Your task to perform on an android device: Clear the shopping cart on costco. Search for logitech g502 on costco, select the first entry, and add it to the cart. Image 0: 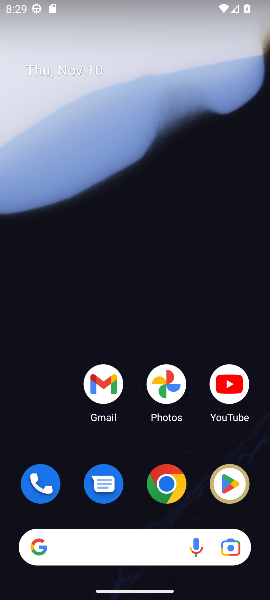
Step 0: click (177, 488)
Your task to perform on an android device: Clear the shopping cart on costco. Search for logitech g502 on costco, select the first entry, and add it to the cart. Image 1: 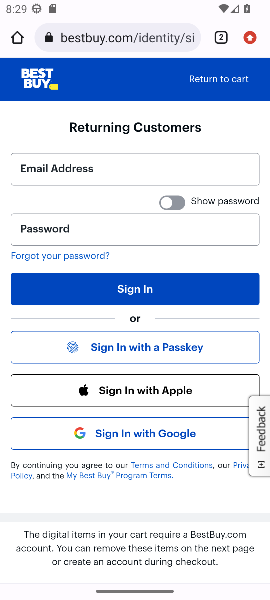
Step 1: click (126, 40)
Your task to perform on an android device: Clear the shopping cart on costco. Search for logitech g502 on costco, select the first entry, and add it to the cart. Image 2: 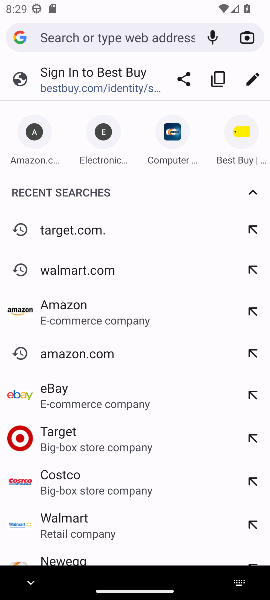
Step 2: type "costco.com"
Your task to perform on an android device: Clear the shopping cart on costco. Search for logitech g502 on costco, select the first entry, and add it to the cart. Image 3: 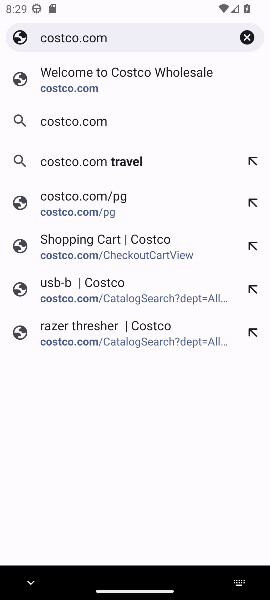
Step 3: click (54, 83)
Your task to perform on an android device: Clear the shopping cart on costco. Search for logitech g502 on costco, select the first entry, and add it to the cart. Image 4: 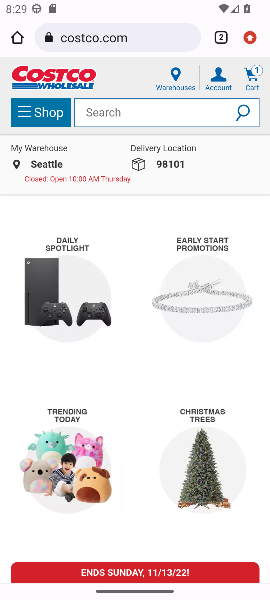
Step 4: click (248, 78)
Your task to perform on an android device: Clear the shopping cart on costco. Search for logitech g502 on costco, select the first entry, and add it to the cart. Image 5: 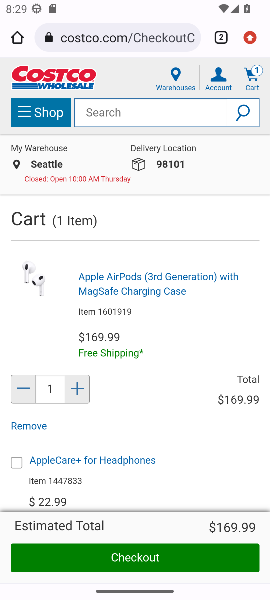
Step 5: click (33, 427)
Your task to perform on an android device: Clear the shopping cart on costco. Search for logitech g502 on costco, select the first entry, and add it to the cart. Image 6: 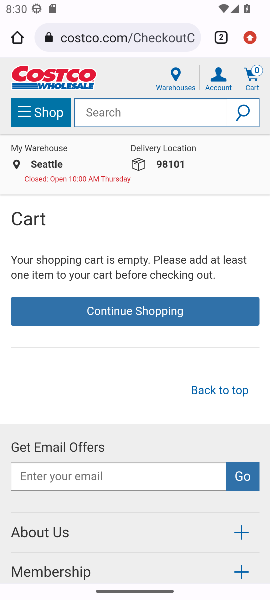
Step 6: click (146, 112)
Your task to perform on an android device: Clear the shopping cart on costco. Search for logitech g502 on costco, select the first entry, and add it to the cart. Image 7: 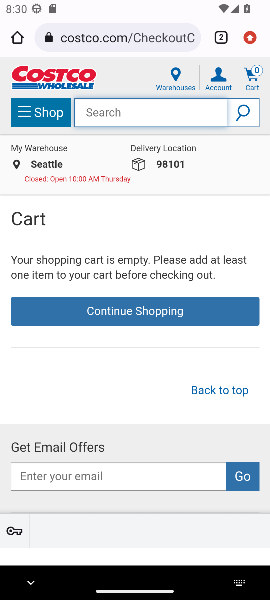
Step 7: type "logitech g502"
Your task to perform on an android device: Clear the shopping cart on costco. Search for logitech g502 on costco, select the first entry, and add it to the cart. Image 8: 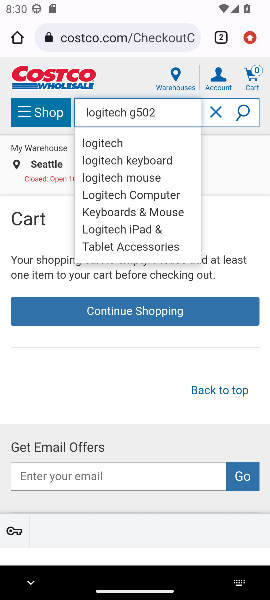
Step 8: click (247, 114)
Your task to perform on an android device: Clear the shopping cart on costco. Search for logitech g502 on costco, select the first entry, and add it to the cart. Image 9: 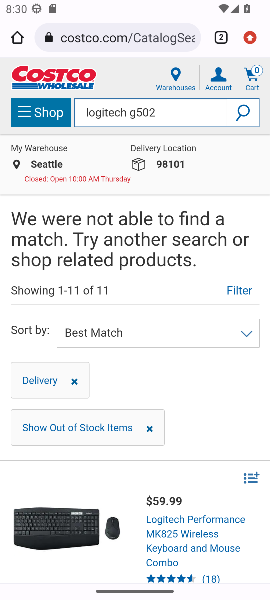
Step 9: task complete